Your task to perform on an android device: Go to ESPN.com Image 0: 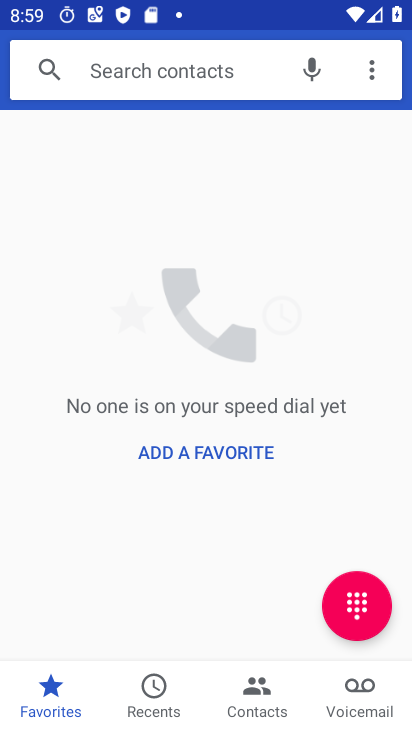
Step 0: press back button
Your task to perform on an android device: Go to ESPN.com Image 1: 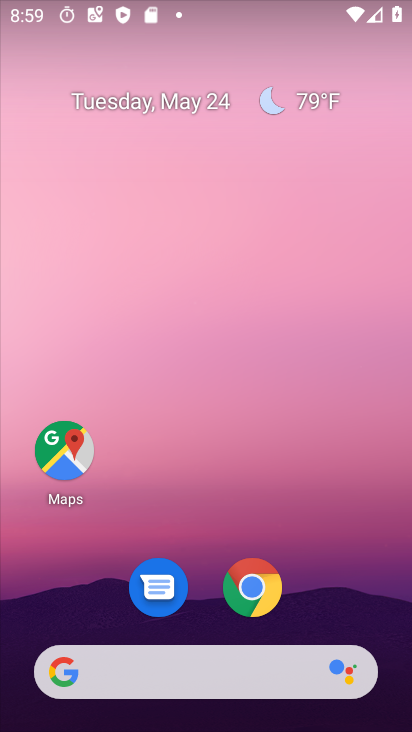
Step 1: click (253, 586)
Your task to perform on an android device: Go to ESPN.com Image 2: 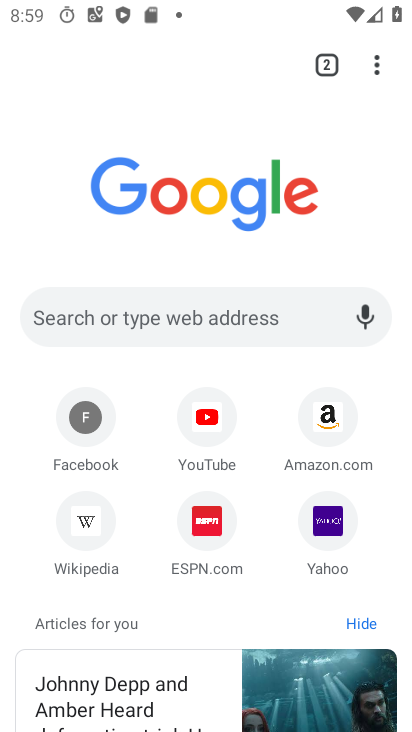
Step 2: click (173, 312)
Your task to perform on an android device: Go to ESPN.com Image 3: 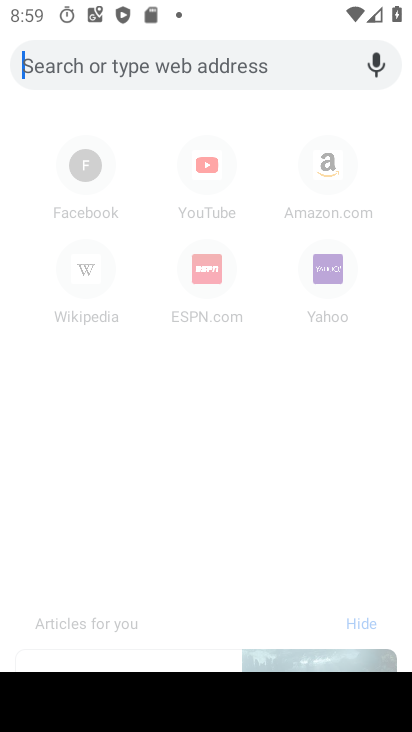
Step 3: type "ESPN.com"
Your task to perform on an android device: Go to ESPN.com Image 4: 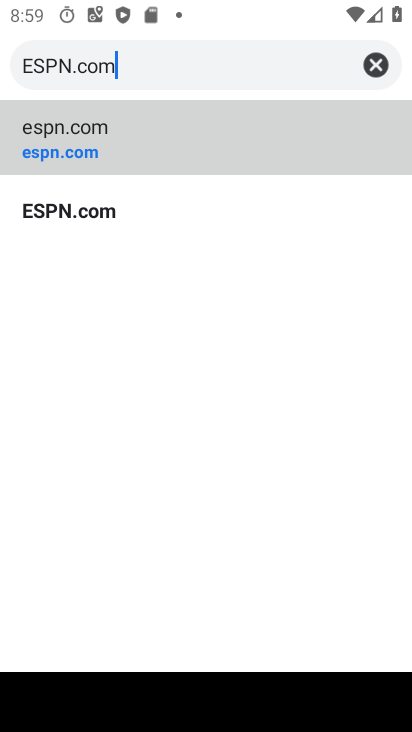
Step 4: type ""
Your task to perform on an android device: Go to ESPN.com Image 5: 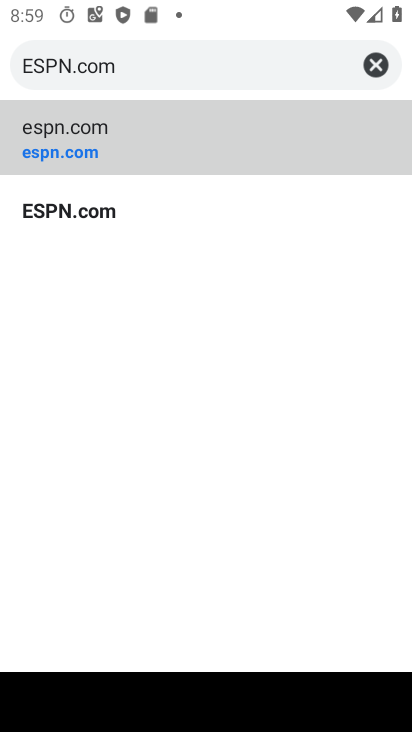
Step 5: click (101, 210)
Your task to perform on an android device: Go to ESPN.com Image 6: 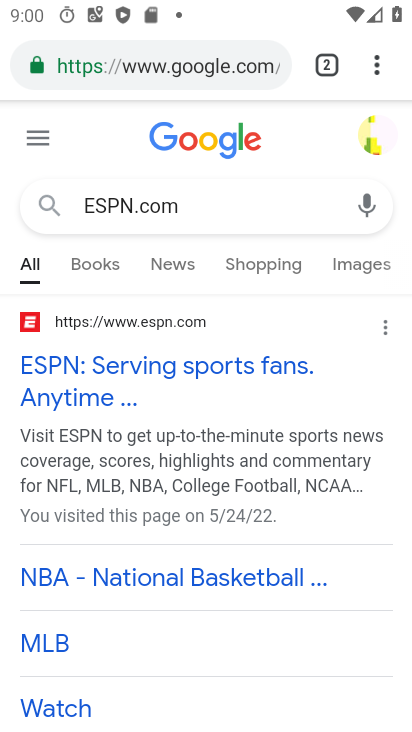
Step 6: click (125, 358)
Your task to perform on an android device: Go to ESPN.com Image 7: 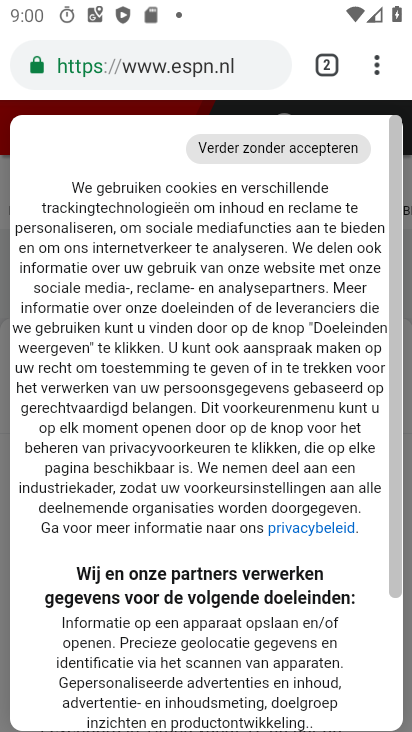
Step 7: task complete